Your task to perform on an android device: turn off picture-in-picture Image 0: 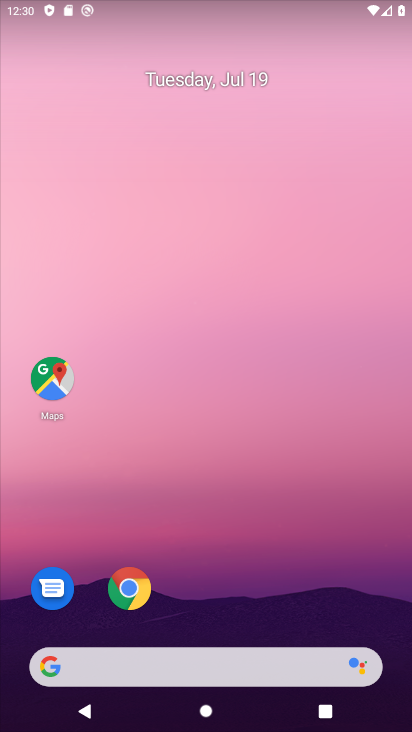
Step 0: drag from (293, 627) to (296, 23)
Your task to perform on an android device: turn off picture-in-picture Image 1: 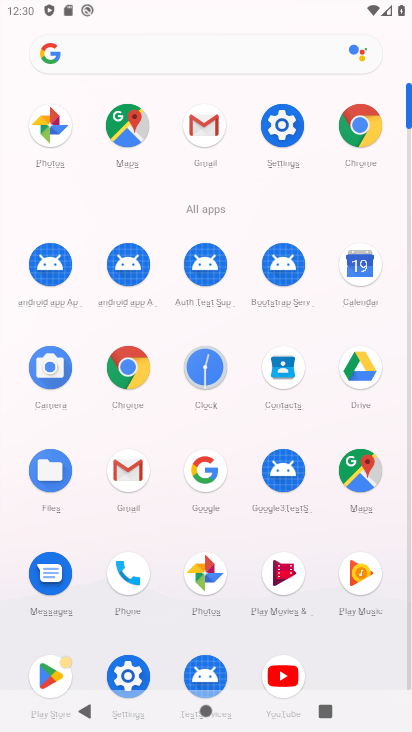
Step 1: click (363, 140)
Your task to perform on an android device: turn off picture-in-picture Image 2: 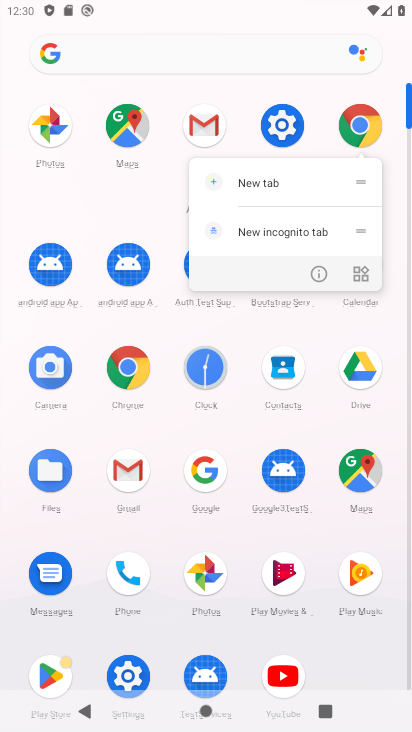
Step 2: click (320, 277)
Your task to perform on an android device: turn off picture-in-picture Image 3: 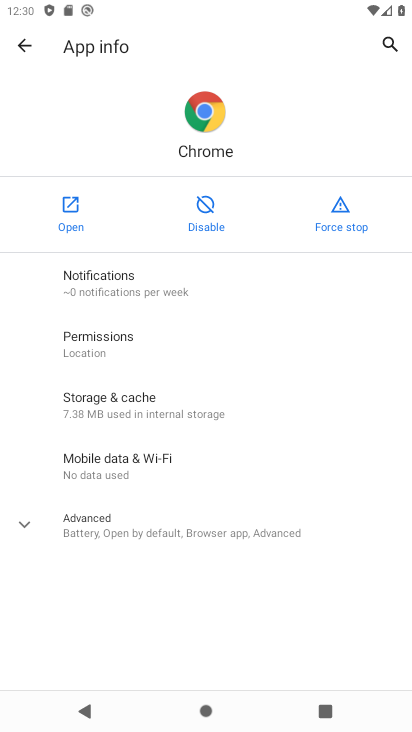
Step 3: click (113, 519)
Your task to perform on an android device: turn off picture-in-picture Image 4: 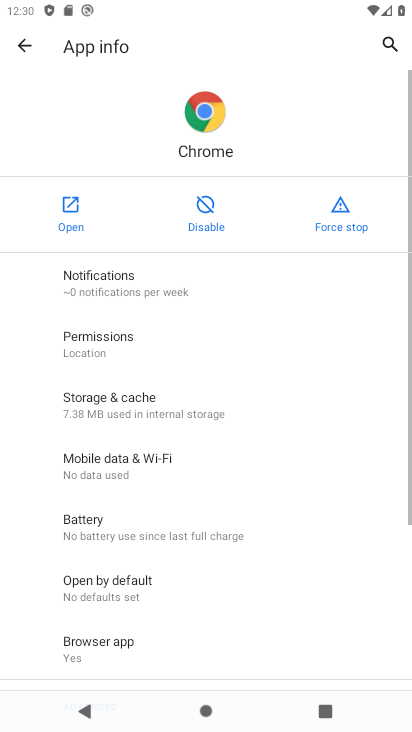
Step 4: drag from (94, 613) to (177, 193)
Your task to perform on an android device: turn off picture-in-picture Image 5: 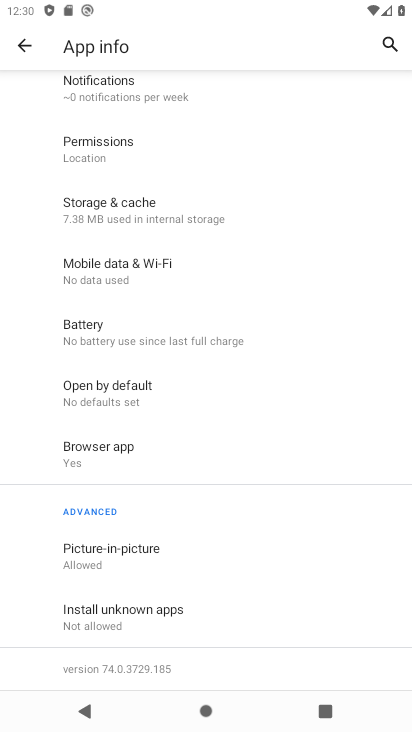
Step 5: click (118, 557)
Your task to perform on an android device: turn off picture-in-picture Image 6: 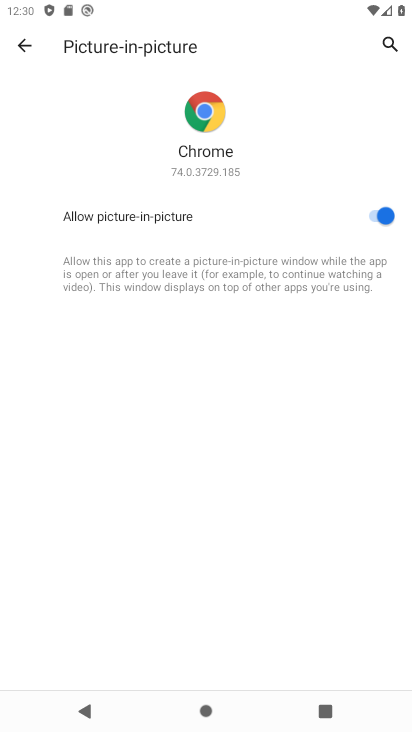
Step 6: click (379, 216)
Your task to perform on an android device: turn off picture-in-picture Image 7: 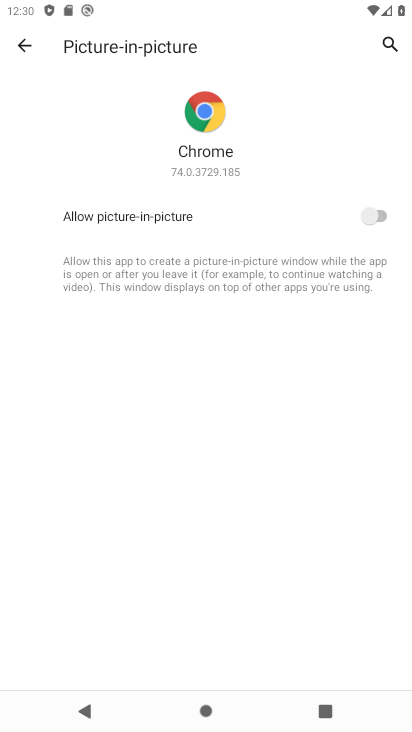
Step 7: task complete